Your task to perform on an android device: Search for pizza restaurants on Maps Image 0: 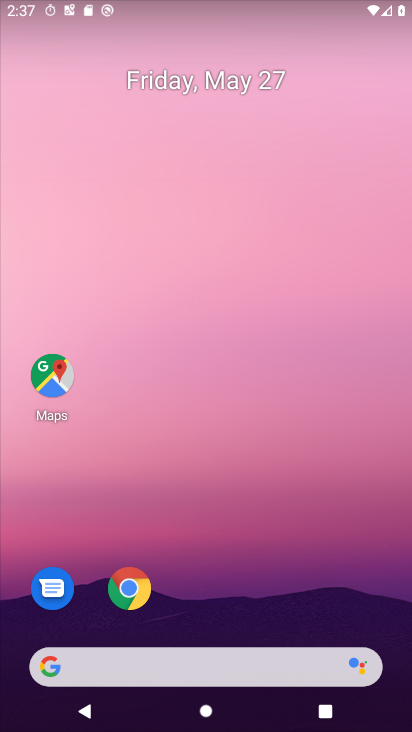
Step 0: click (46, 388)
Your task to perform on an android device: Search for pizza restaurants on Maps Image 1: 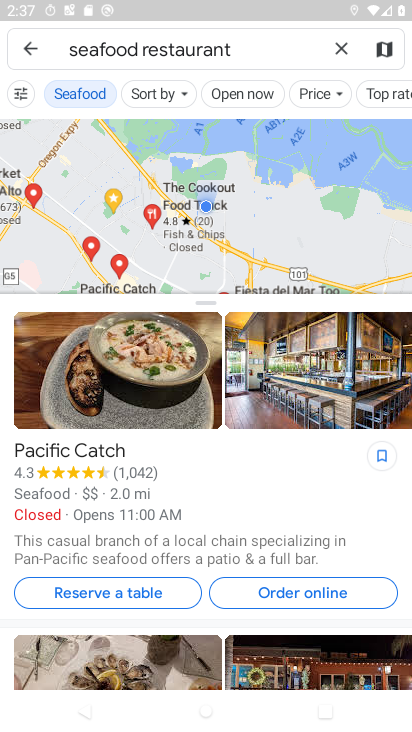
Step 1: click (340, 48)
Your task to perform on an android device: Search for pizza restaurants on Maps Image 2: 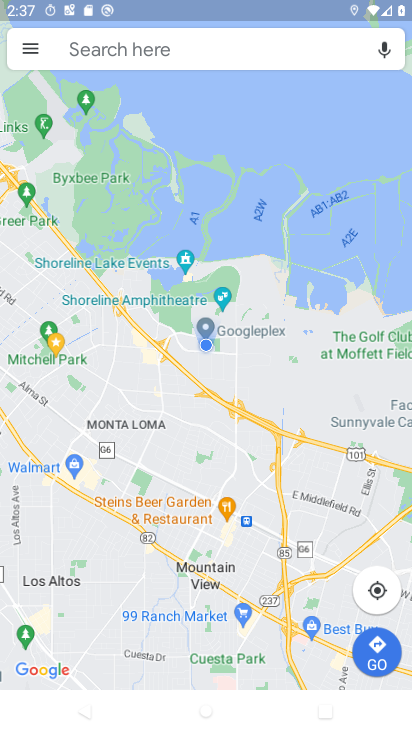
Step 2: click (184, 52)
Your task to perform on an android device: Search for pizza restaurants on Maps Image 3: 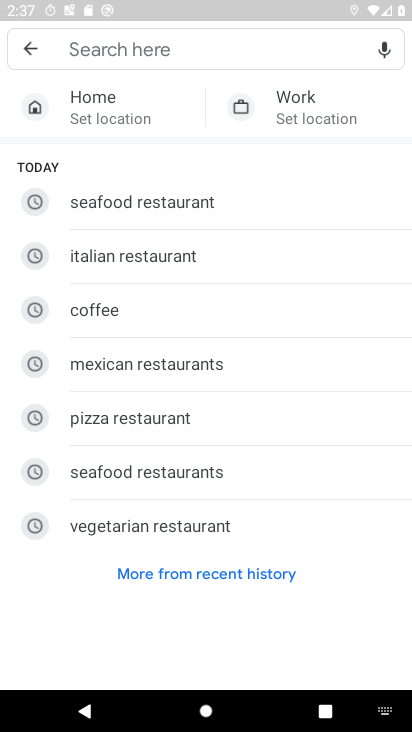
Step 3: type "pizza restaurants"
Your task to perform on an android device: Search for pizza restaurants on Maps Image 4: 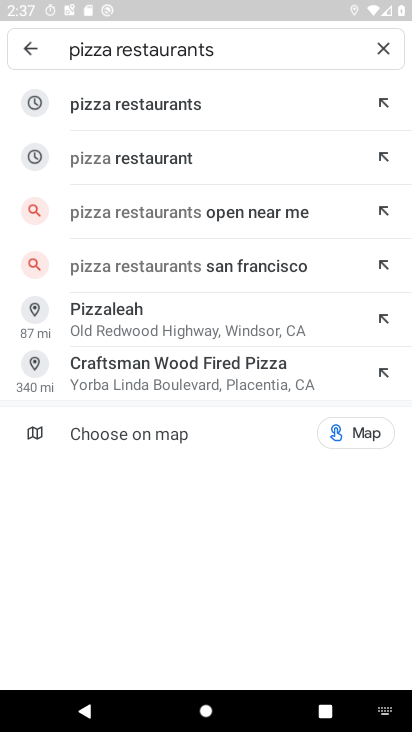
Step 4: click (152, 99)
Your task to perform on an android device: Search for pizza restaurants on Maps Image 5: 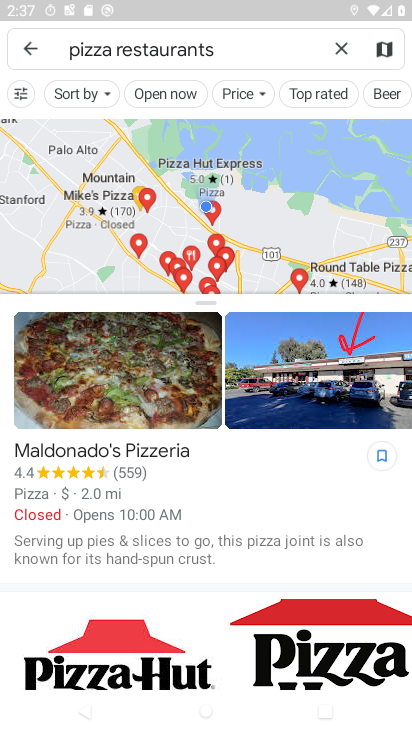
Step 5: task complete